Your task to perform on an android device: Open the calendar and show me this week's events Image 0: 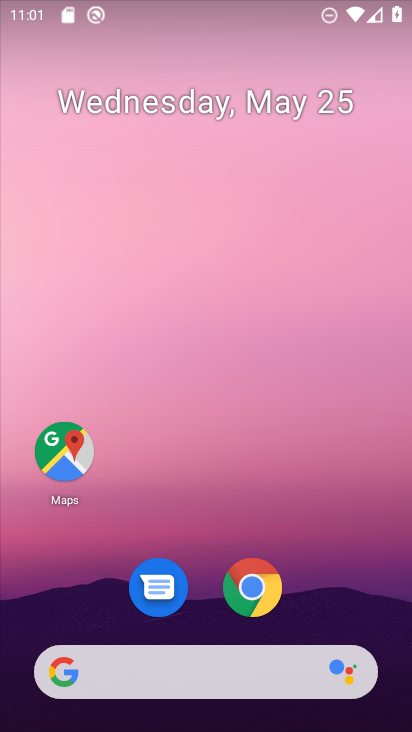
Step 0: drag from (348, 580) to (233, 47)
Your task to perform on an android device: Open the calendar and show me this week's events Image 1: 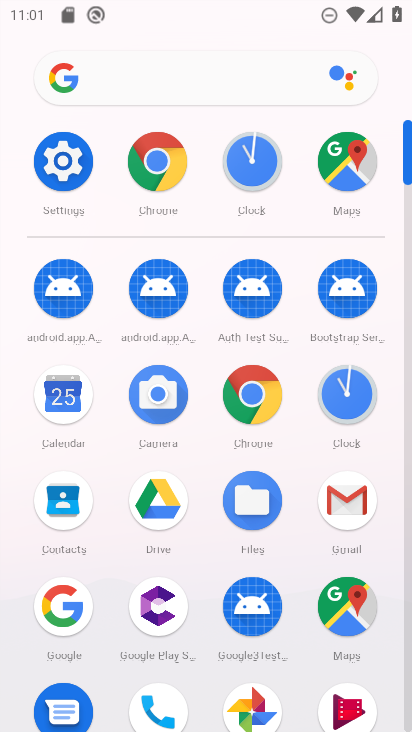
Step 1: drag from (25, 608) to (22, 195)
Your task to perform on an android device: Open the calendar and show me this week's events Image 2: 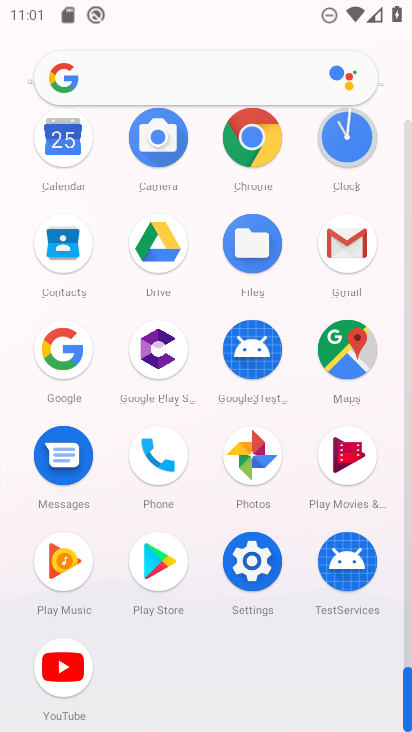
Step 2: click (60, 138)
Your task to perform on an android device: Open the calendar and show me this week's events Image 3: 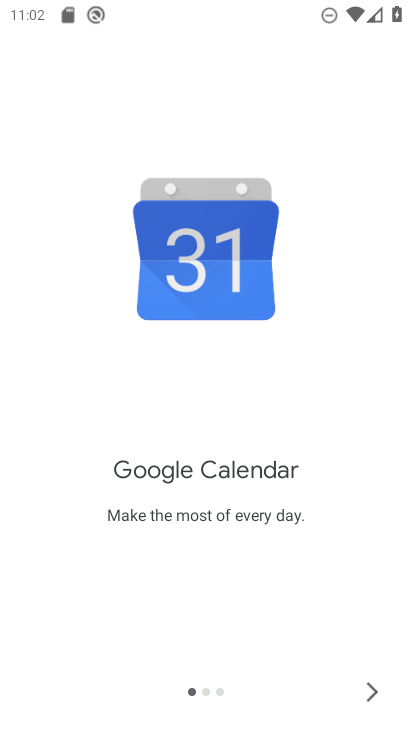
Step 3: click (378, 693)
Your task to perform on an android device: Open the calendar and show me this week's events Image 4: 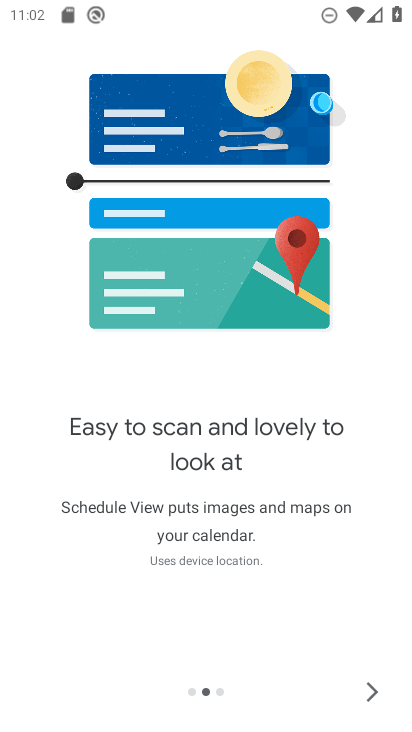
Step 4: click (372, 693)
Your task to perform on an android device: Open the calendar and show me this week's events Image 5: 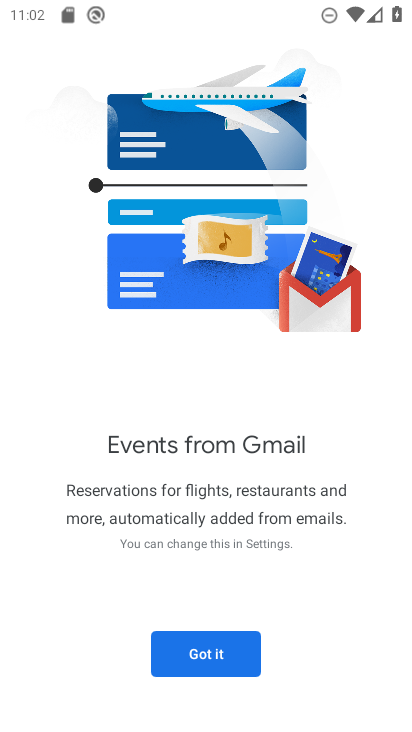
Step 5: click (215, 665)
Your task to perform on an android device: Open the calendar and show me this week's events Image 6: 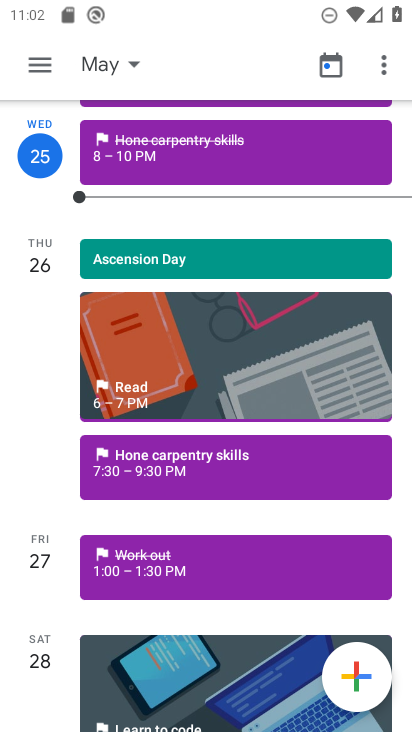
Step 6: click (33, 73)
Your task to perform on an android device: Open the calendar and show me this week's events Image 7: 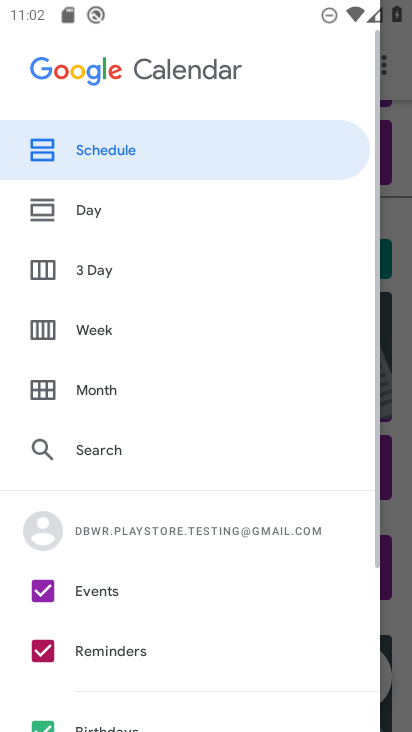
Step 7: click (108, 324)
Your task to perform on an android device: Open the calendar and show me this week's events Image 8: 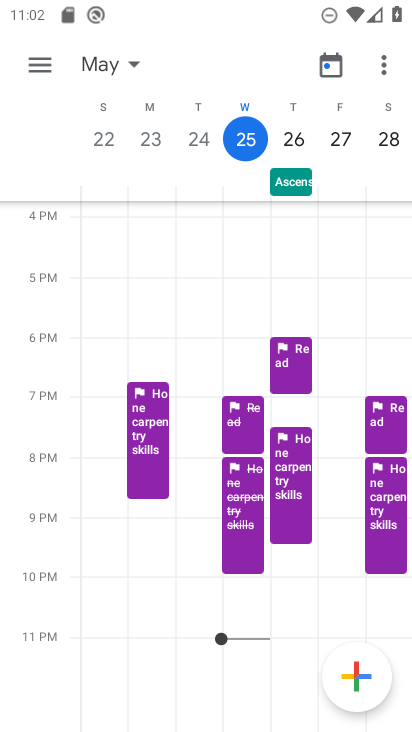
Step 8: task complete